Your task to perform on an android device: snooze an email in the gmail app Image 0: 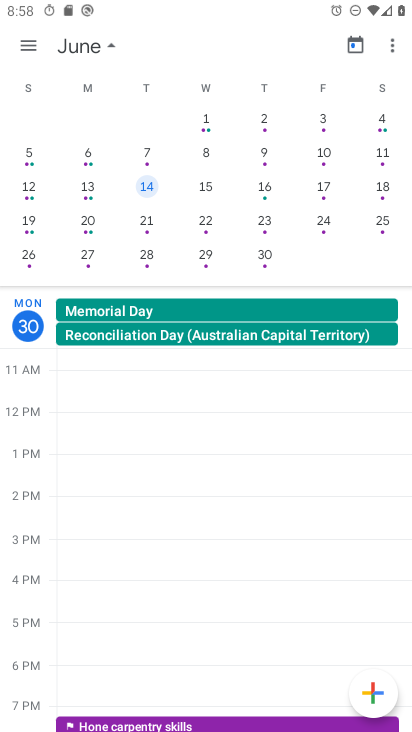
Step 0: press home button
Your task to perform on an android device: snooze an email in the gmail app Image 1: 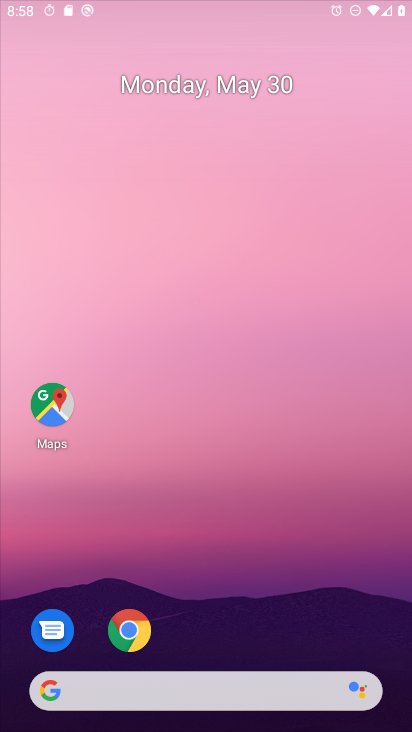
Step 1: drag from (357, 638) to (156, 15)
Your task to perform on an android device: snooze an email in the gmail app Image 2: 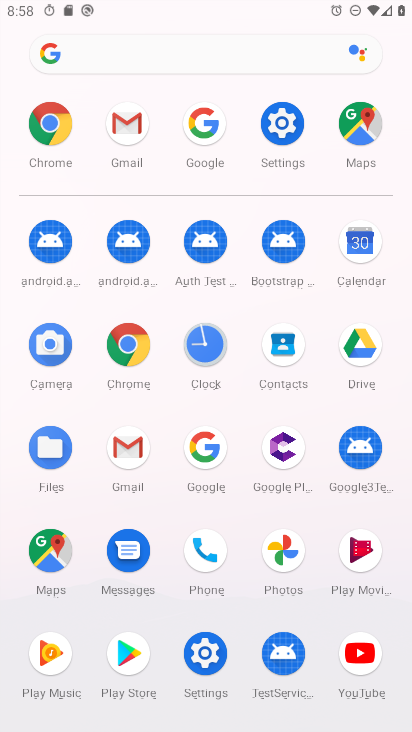
Step 2: click (141, 449)
Your task to perform on an android device: snooze an email in the gmail app Image 3: 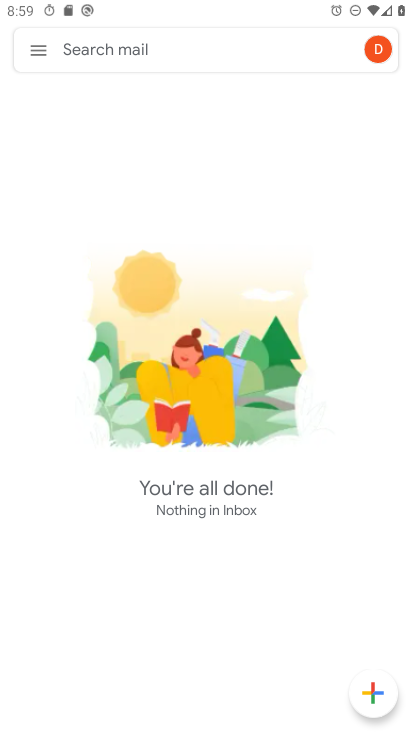
Step 3: task complete